Your task to perform on an android device: Open eBay Image 0: 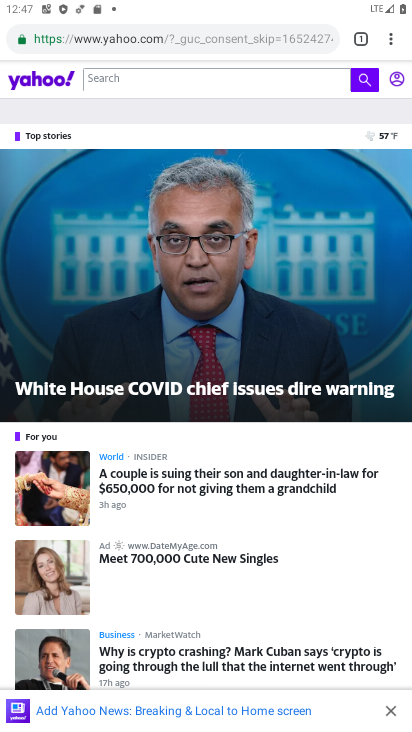
Step 0: press home button
Your task to perform on an android device: Open eBay Image 1: 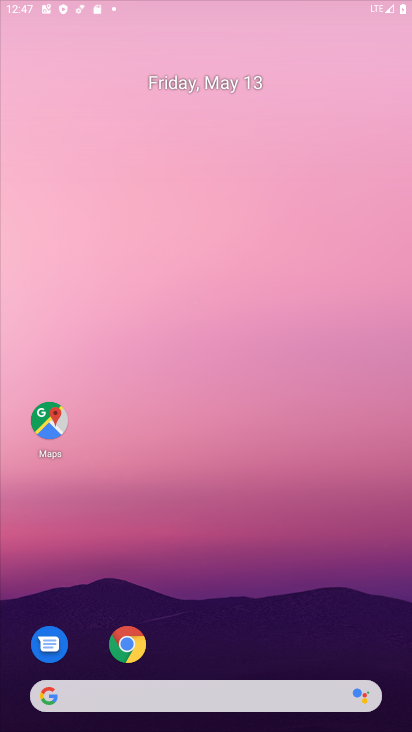
Step 1: drag from (367, 638) to (310, 8)
Your task to perform on an android device: Open eBay Image 2: 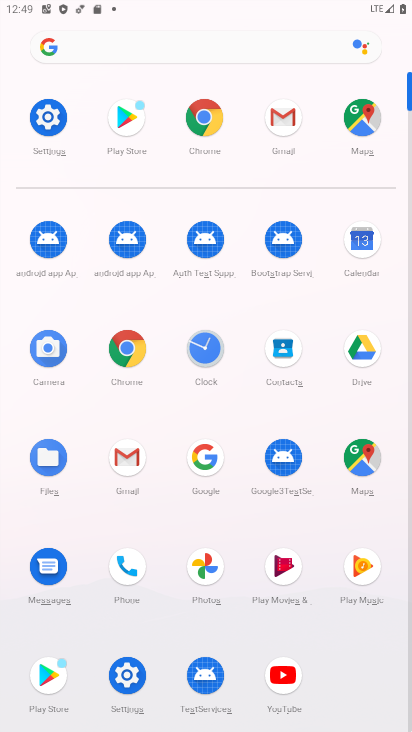
Step 2: click (110, 345)
Your task to perform on an android device: Open eBay Image 3: 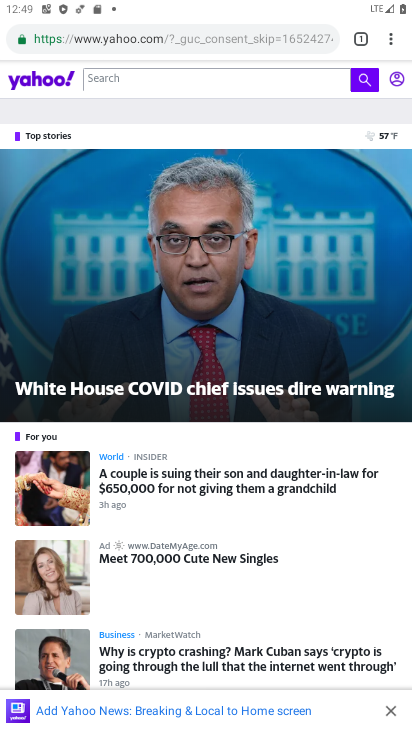
Step 3: press back button
Your task to perform on an android device: Open eBay Image 4: 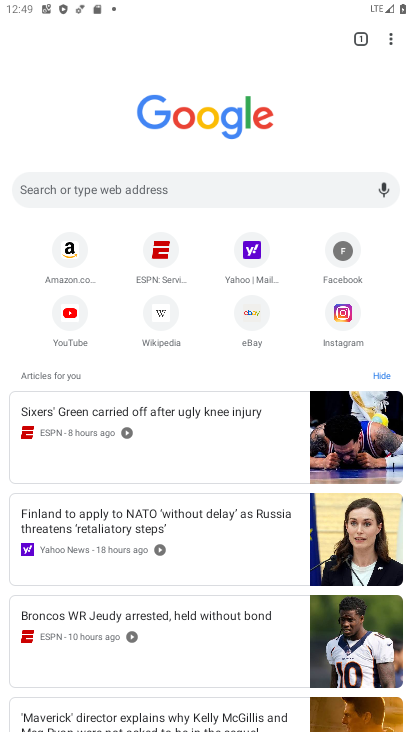
Step 4: click (246, 312)
Your task to perform on an android device: Open eBay Image 5: 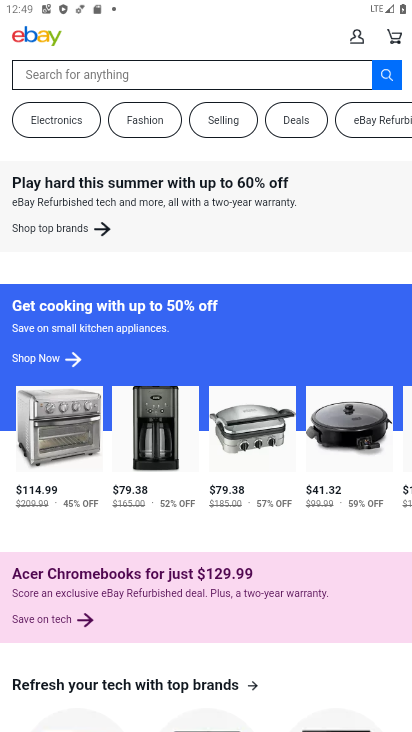
Step 5: task complete